Your task to perform on an android device: What's the latest news in planetary science? Image 0: 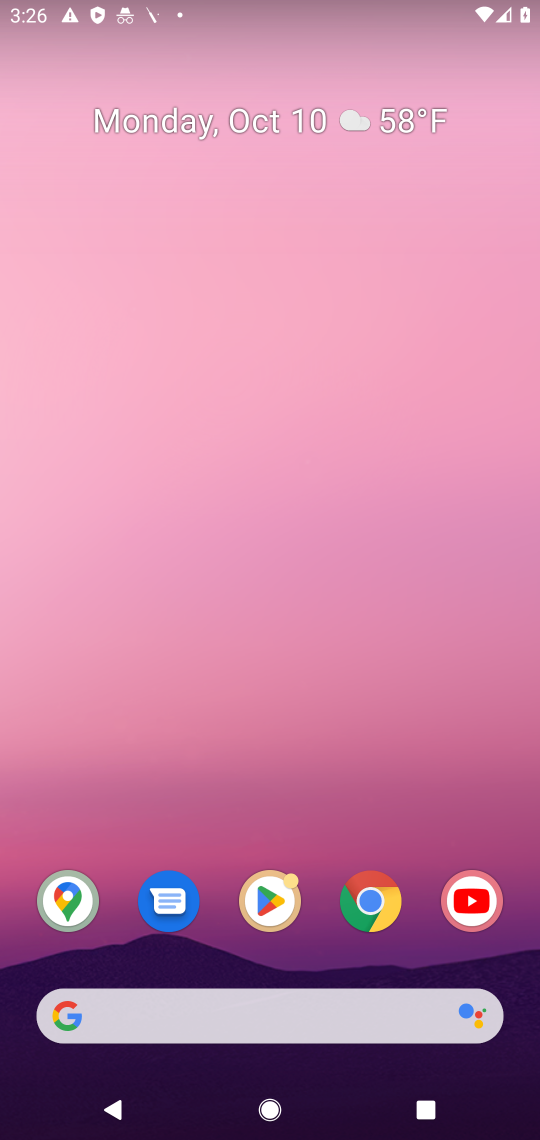
Step 0: drag from (268, 951) to (350, 360)
Your task to perform on an android device: What's the latest news in planetary science? Image 1: 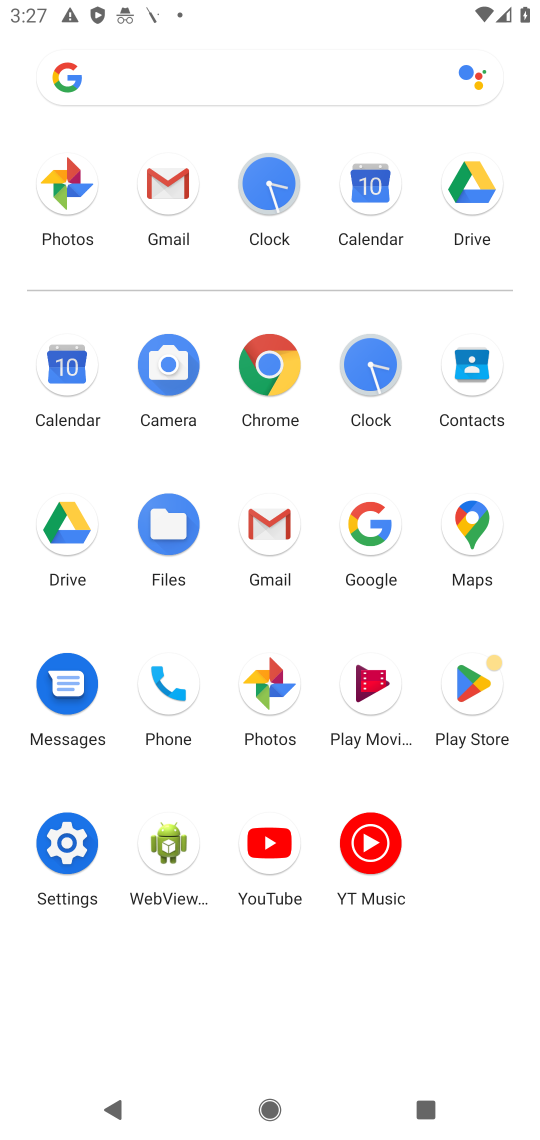
Step 1: click (377, 578)
Your task to perform on an android device: What's the latest news in planetary science? Image 2: 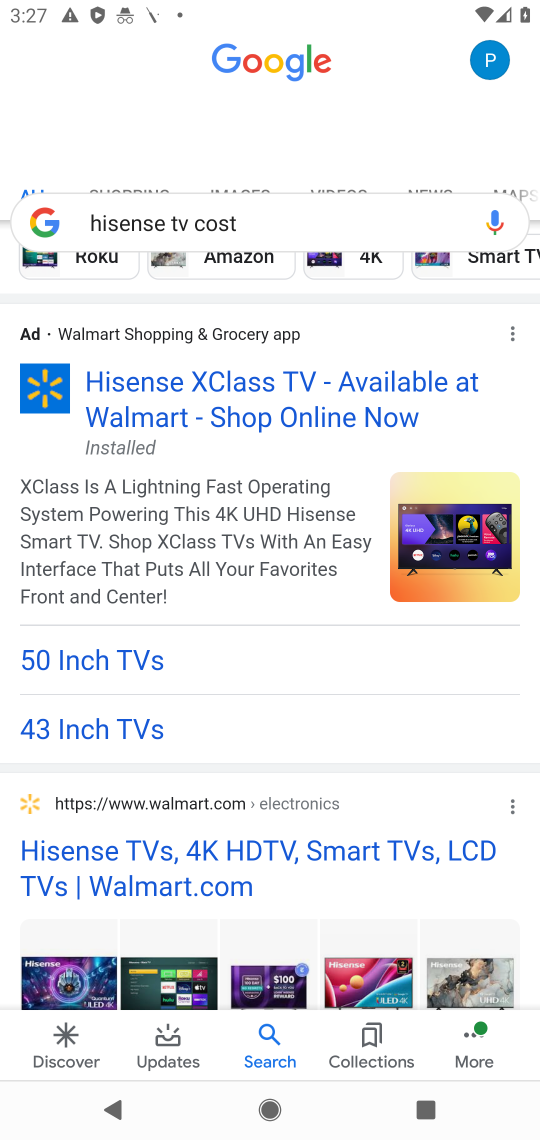
Step 2: click (343, 213)
Your task to perform on an android device: What's the latest news in planetary science? Image 3: 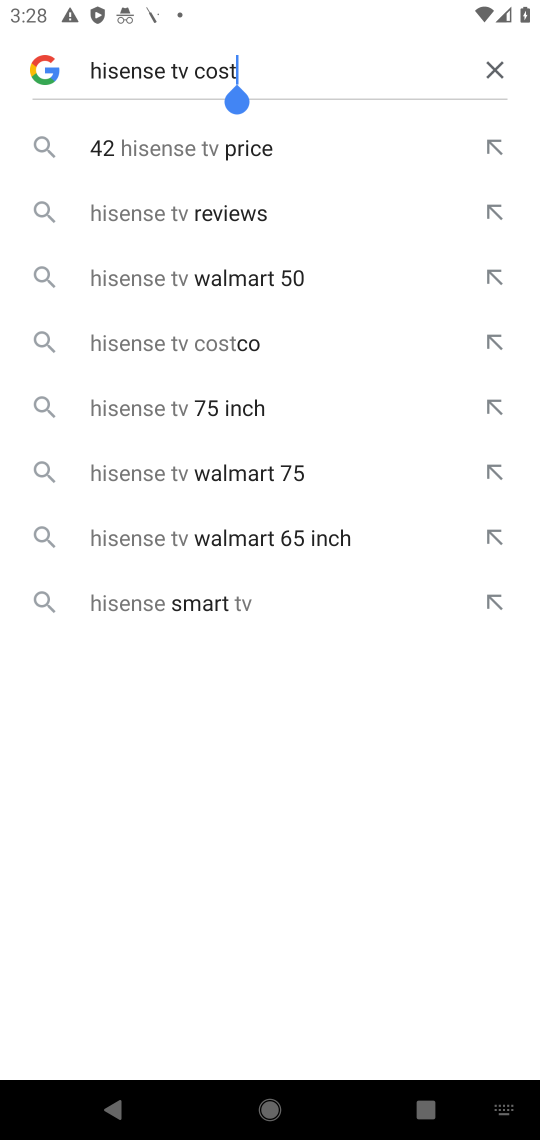
Step 3: click (500, 76)
Your task to perform on an android device: What's the latest news in planetary science? Image 4: 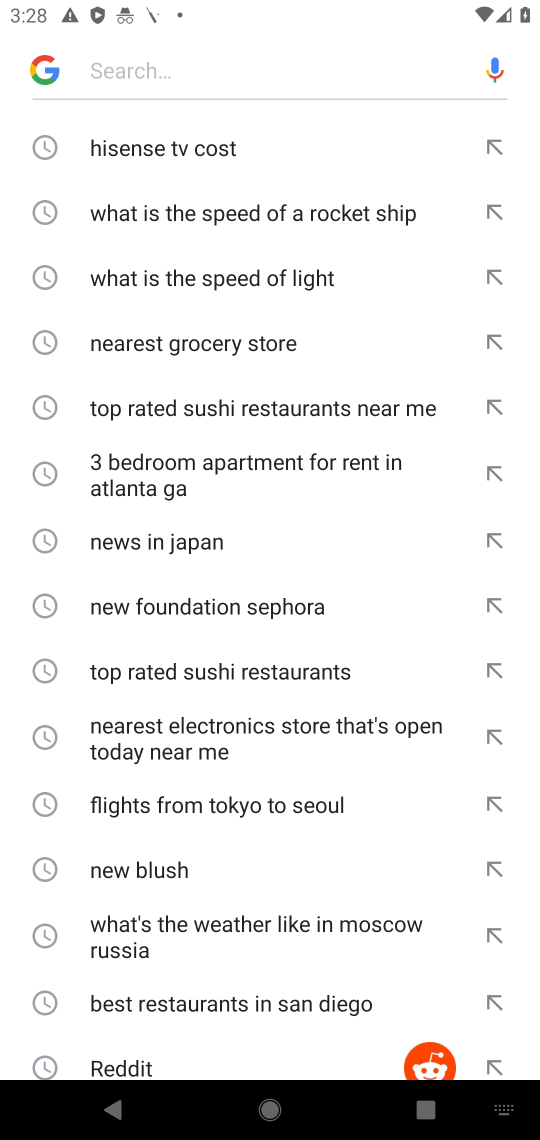
Step 4: type "What's the latest news in planetary science?"
Your task to perform on an android device: What's the latest news in planetary science? Image 5: 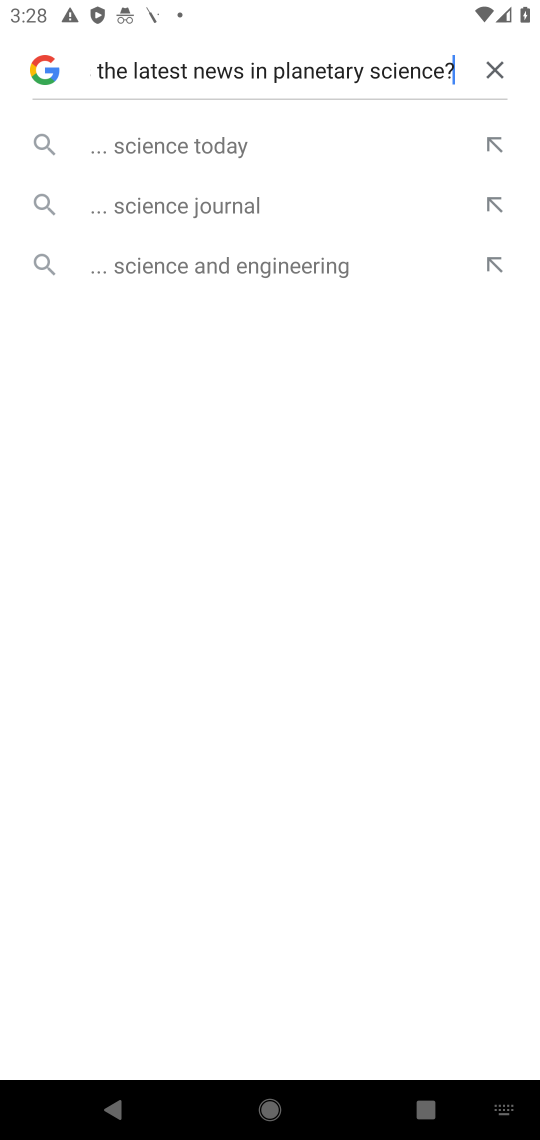
Step 5: click (314, 134)
Your task to perform on an android device: What's the latest news in planetary science? Image 6: 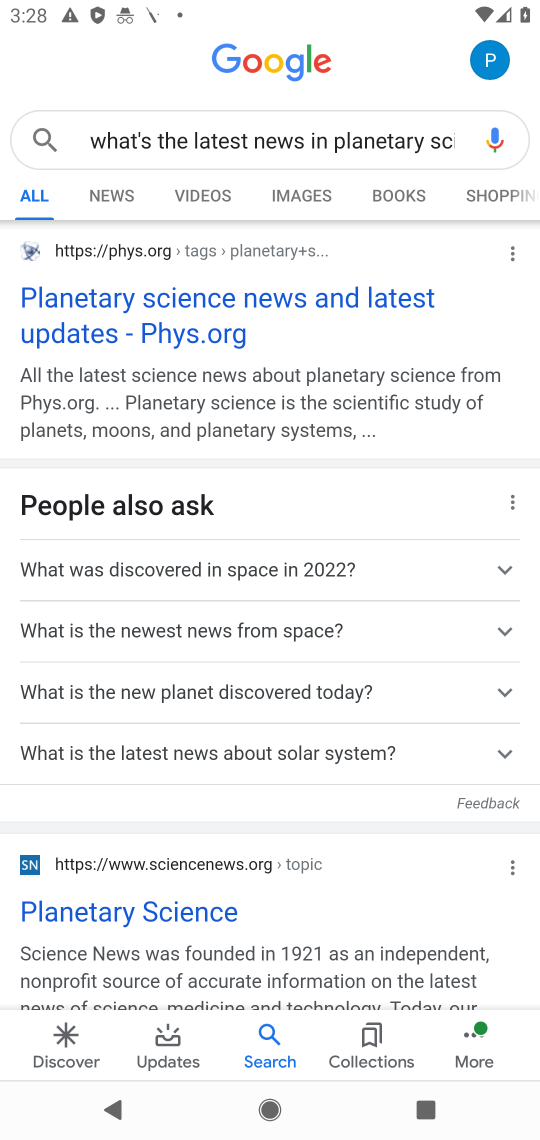
Step 6: click (117, 196)
Your task to perform on an android device: What's the latest news in planetary science? Image 7: 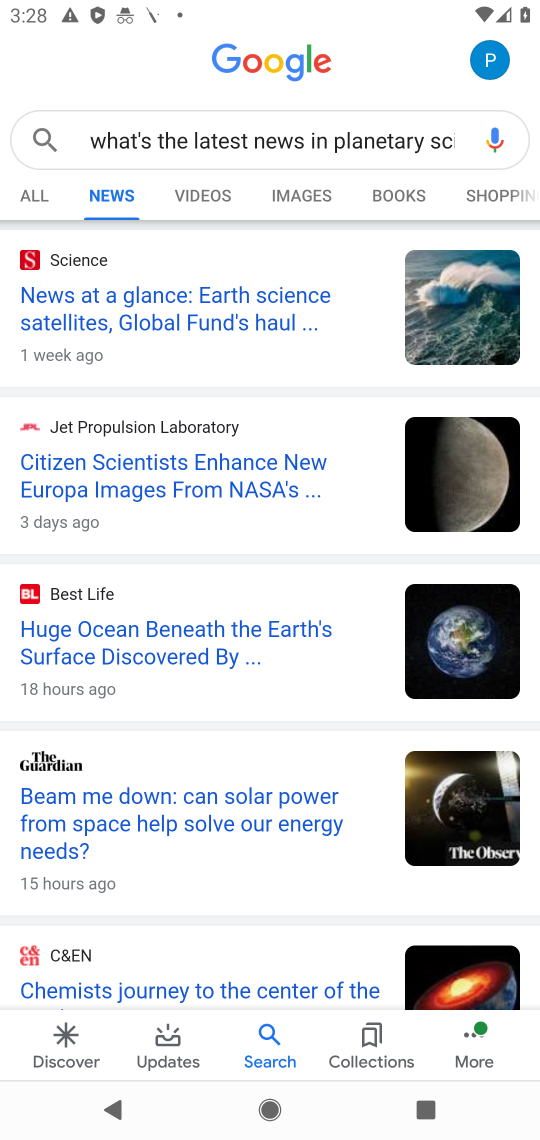
Step 7: task complete